Your task to perform on an android device: turn on data saver in the chrome app Image 0: 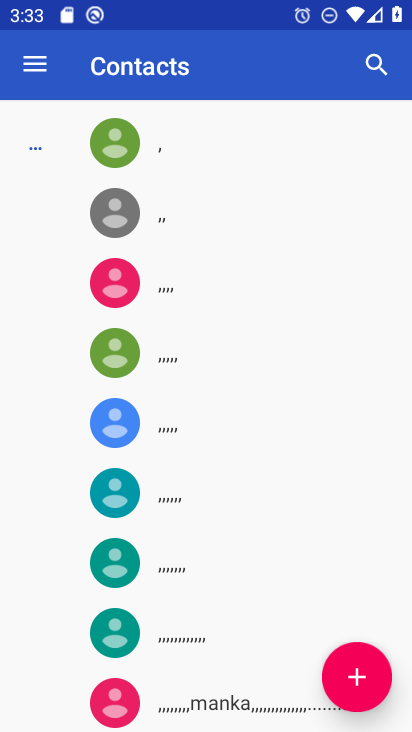
Step 0: press back button
Your task to perform on an android device: turn on data saver in the chrome app Image 1: 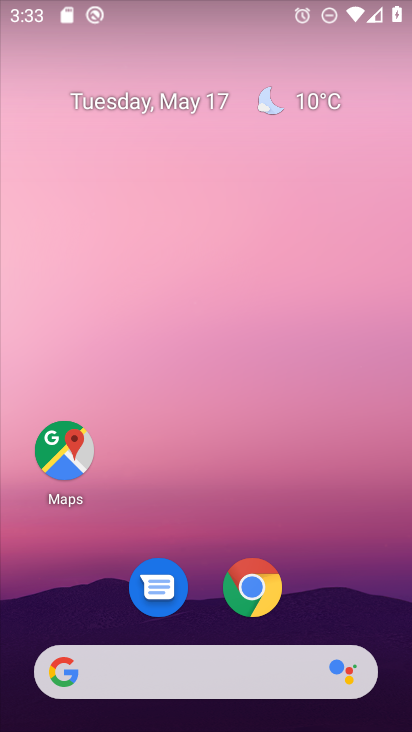
Step 1: drag from (343, 587) to (264, 32)
Your task to perform on an android device: turn on data saver in the chrome app Image 2: 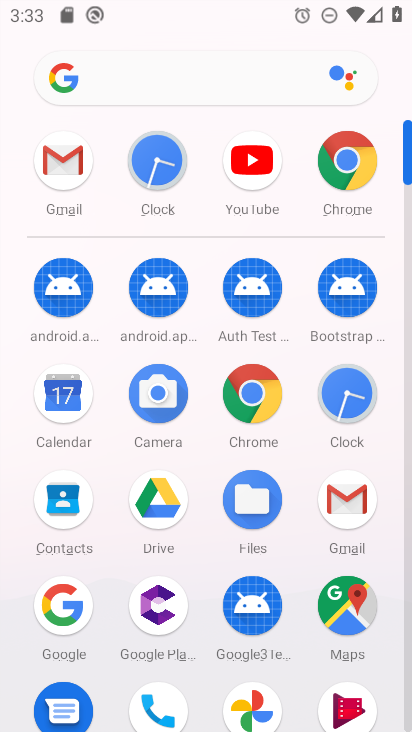
Step 2: drag from (10, 544) to (14, 320)
Your task to perform on an android device: turn on data saver in the chrome app Image 3: 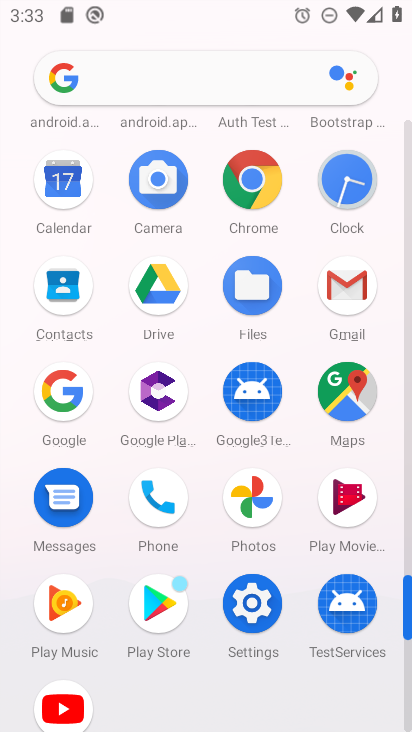
Step 3: click (249, 172)
Your task to perform on an android device: turn on data saver in the chrome app Image 4: 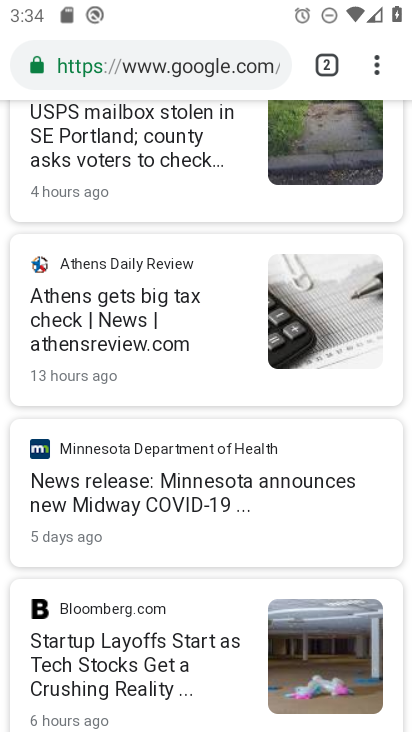
Step 4: drag from (378, 69) to (162, 624)
Your task to perform on an android device: turn on data saver in the chrome app Image 5: 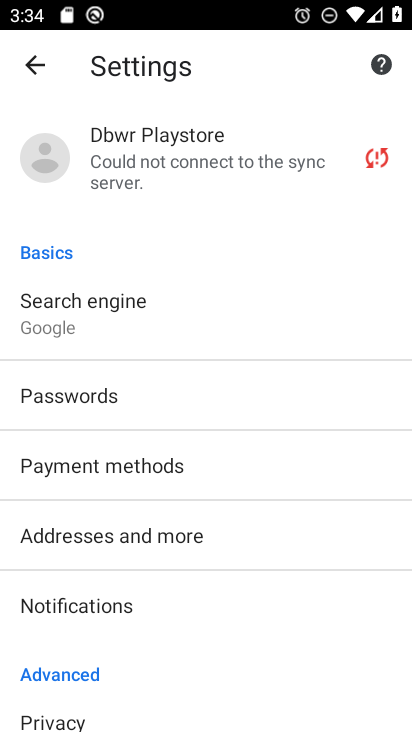
Step 5: drag from (243, 628) to (239, 213)
Your task to perform on an android device: turn on data saver in the chrome app Image 6: 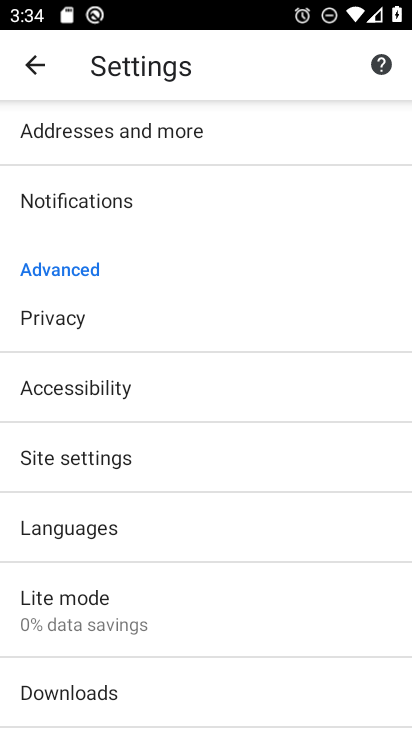
Step 6: drag from (241, 570) to (243, 204)
Your task to perform on an android device: turn on data saver in the chrome app Image 7: 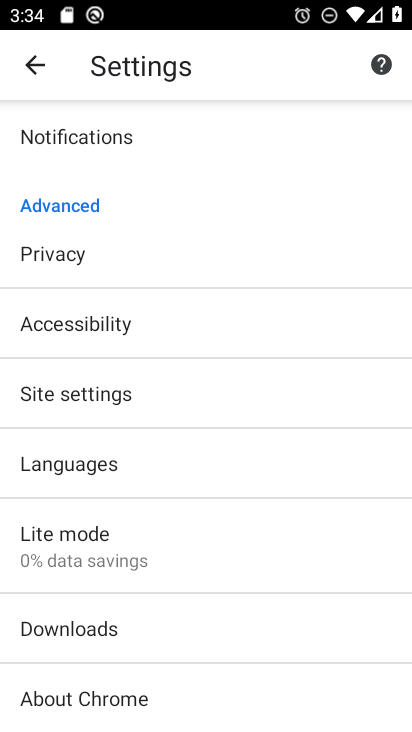
Step 7: drag from (240, 608) to (281, 226)
Your task to perform on an android device: turn on data saver in the chrome app Image 8: 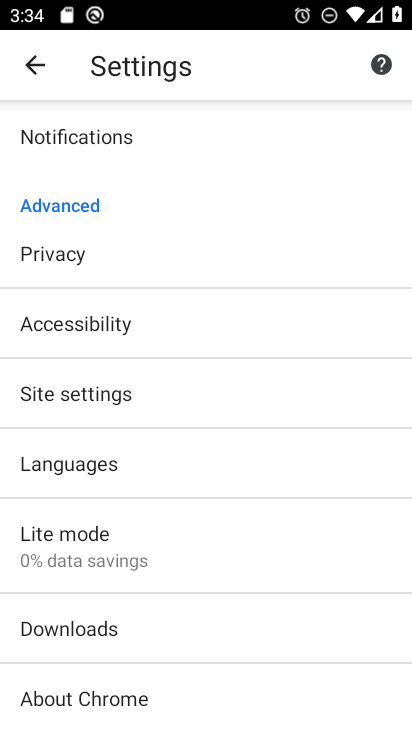
Step 8: drag from (234, 207) to (236, 636)
Your task to perform on an android device: turn on data saver in the chrome app Image 9: 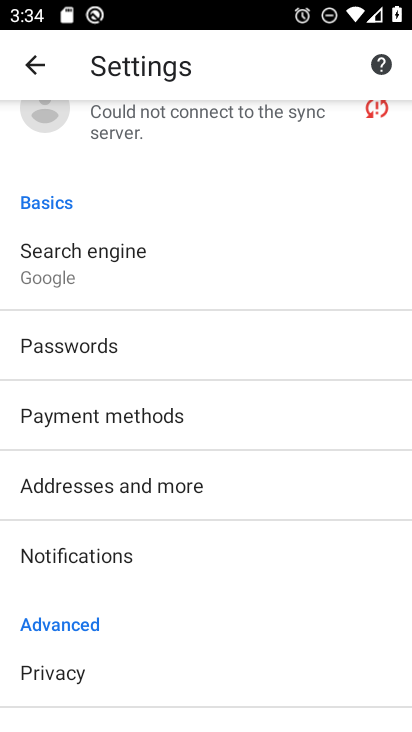
Step 9: drag from (259, 265) to (237, 592)
Your task to perform on an android device: turn on data saver in the chrome app Image 10: 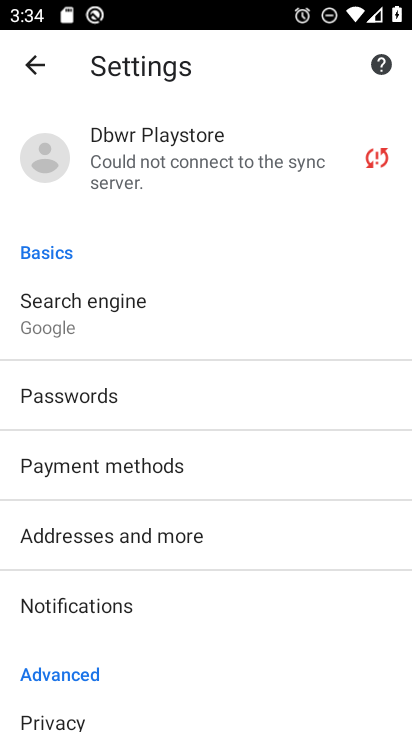
Step 10: drag from (241, 606) to (280, 169)
Your task to perform on an android device: turn on data saver in the chrome app Image 11: 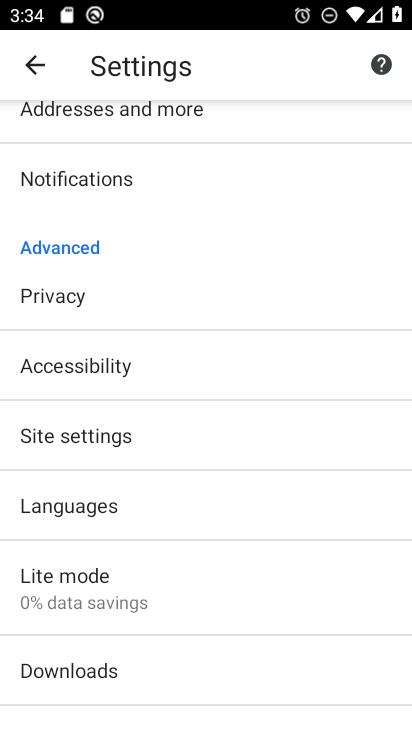
Step 11: drag from (219, 595) to (257, 259)
Your task to perform on an android device: turn on data saver in the chrome app Image 12: 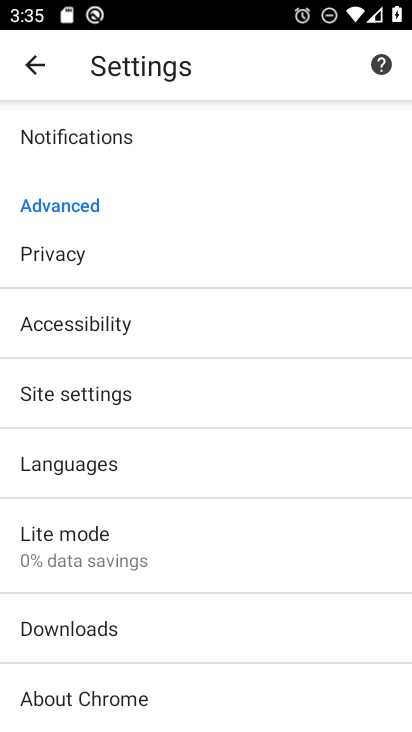
Step 12: click (132, 539)
Your task to perform on an android device: turn on data saver in the chrome app Image 13: 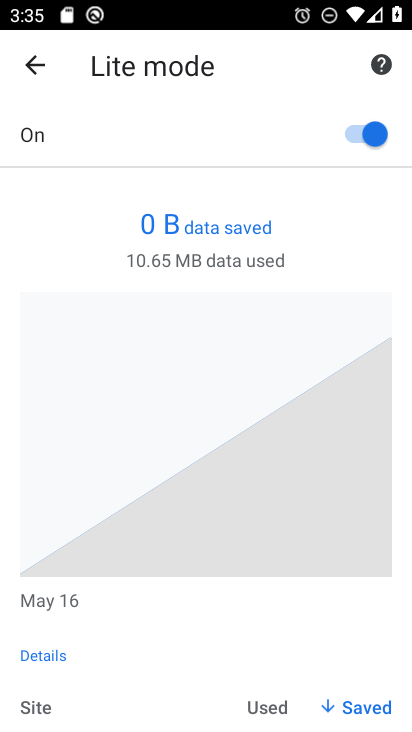
Step 13: task complete